Your task to perform on an android device: Go to Yahoo.com Image 0: 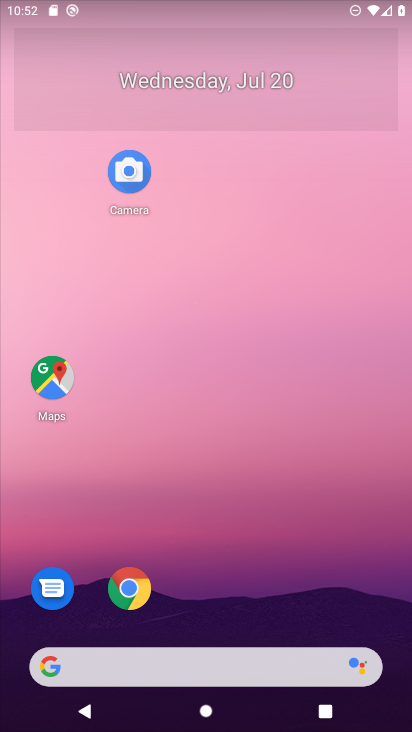
Step 0: click (43, 658)
Your task to perform on an android device: Go to Yahoo.com Image 1: 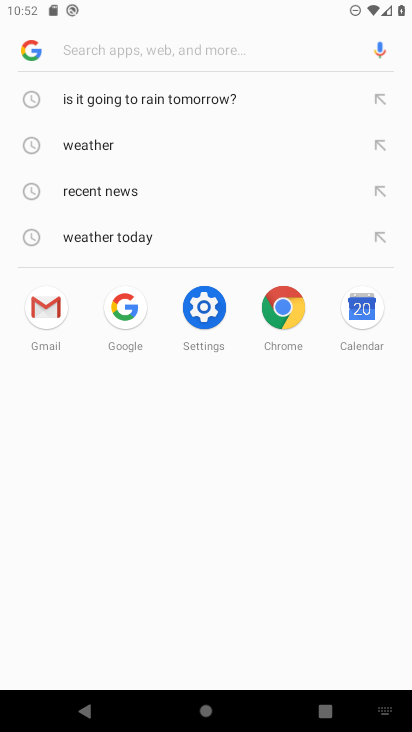
Step 1: type "Yahoo.com"
Your task to perform on an android device: Go to Yahoo.com Image 2: 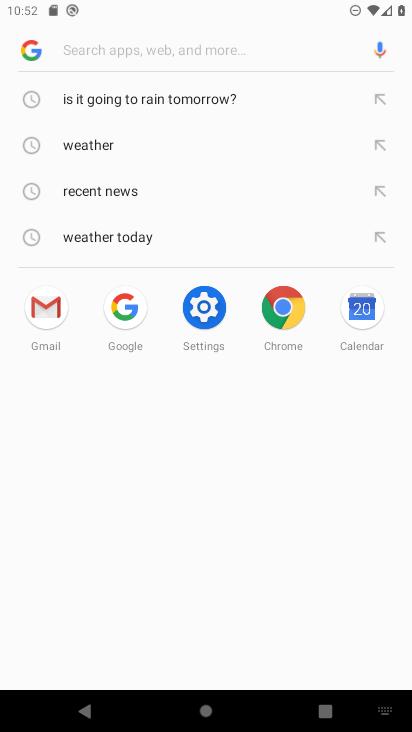
Step 2: click (101, 56)
Your task to perform on an android device: Go to Yahoo.com Image 3: 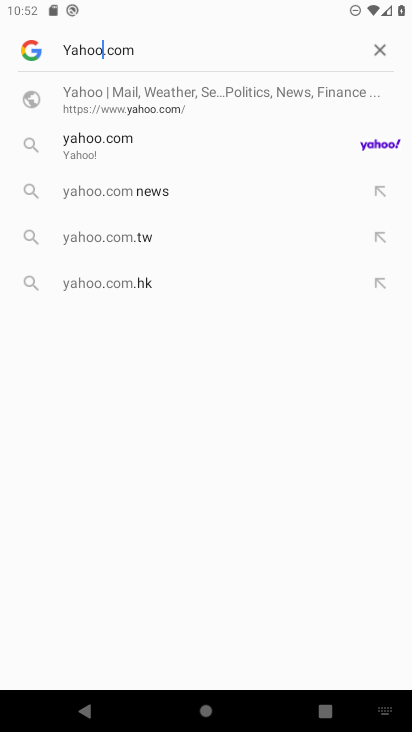
Step 3: press enter
Your task to perform on an android device: Go to Yahoo.com Image 4: 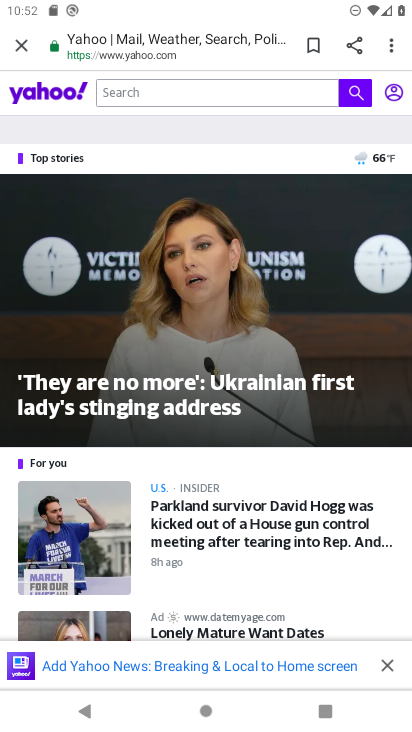
Step 4: task complete